Your task to perform on an android device: turn on sleep mode Image 0: 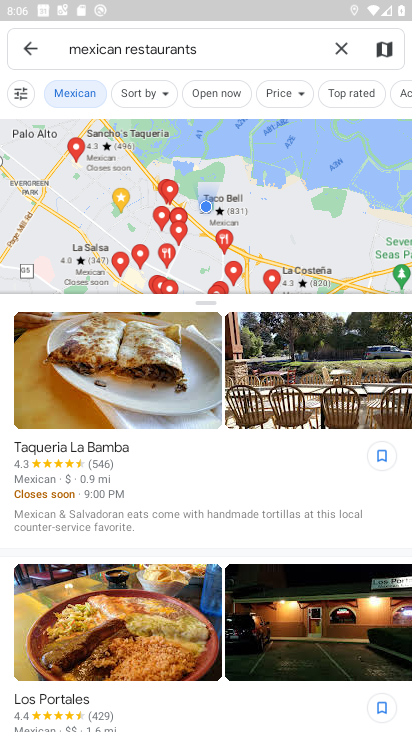
Step 0: press home button
Your task to perform on an android device: turn on sleep mode Image 1: 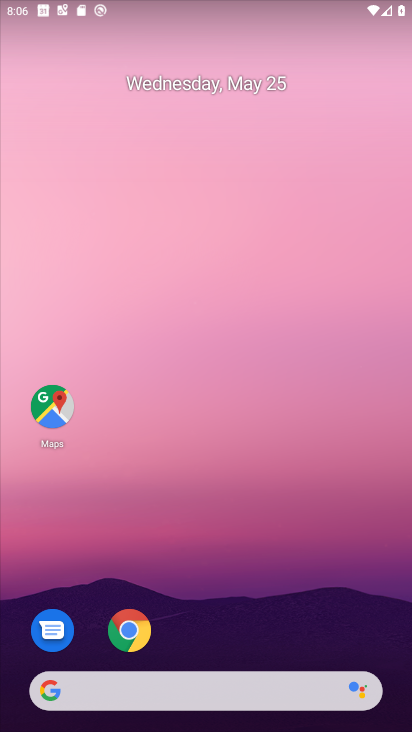
Step 1: drag from (260, 545) to (259, 120)
Your task to perform on an android device: turn on sleep mode Image 2: 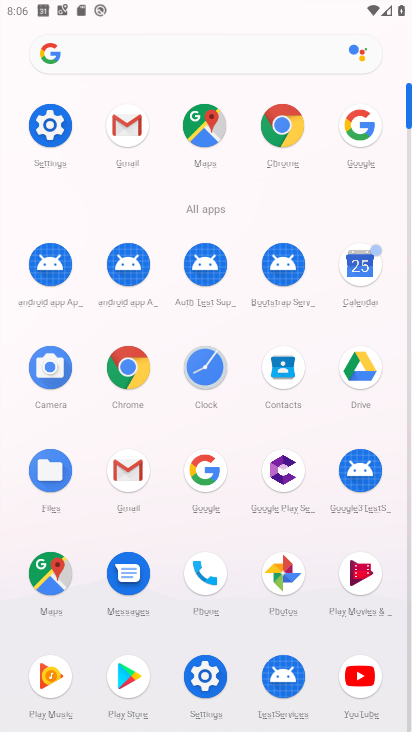
Step 2: click (56, 133)
Your task to perform on an android device: turn on sleep mode Image 3: 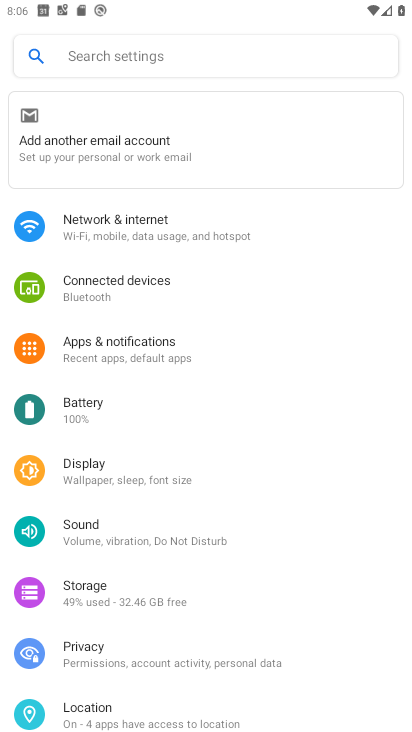
Step 3: click (148, 470)
Your task to perform on an android device: turn on sleep mode Image 4: 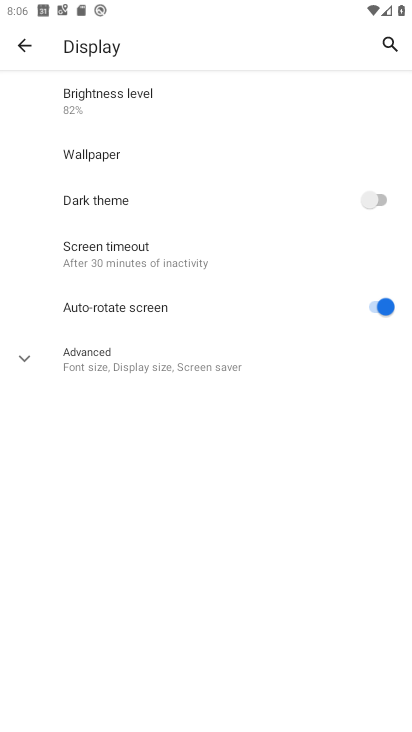
Step 4: click (139, 241)
Your task to perform on an android device: turn on sleep mode Image 5: 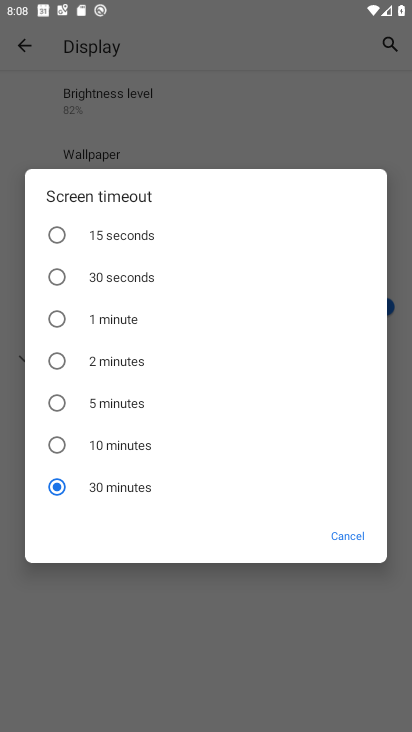
Step 5: task complete